Your task to perform on an android device: Open battery settings Image 0: 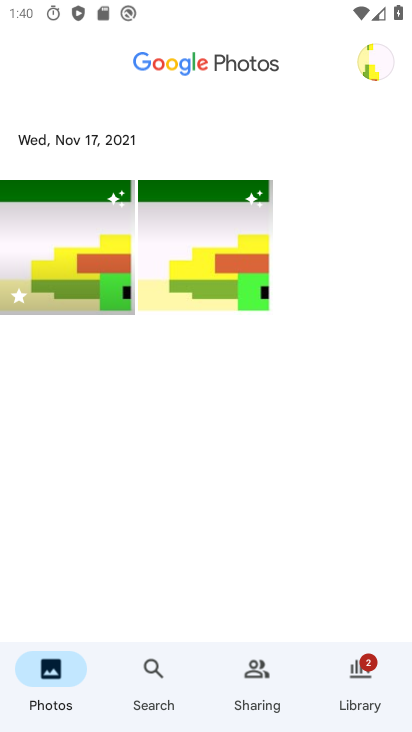
Step 0: press home button
Your task to perform on an android device: Open battery settings Image 1: 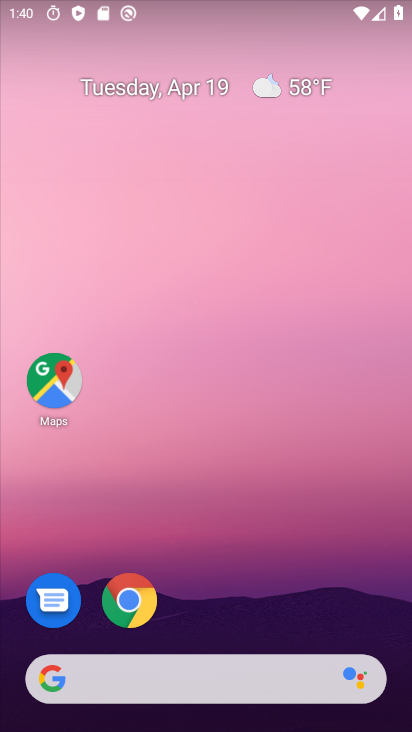
Step 1: drag from (244, 722) to (295, 205)
Your task to perform on an android device: Open battery settings Image 2: 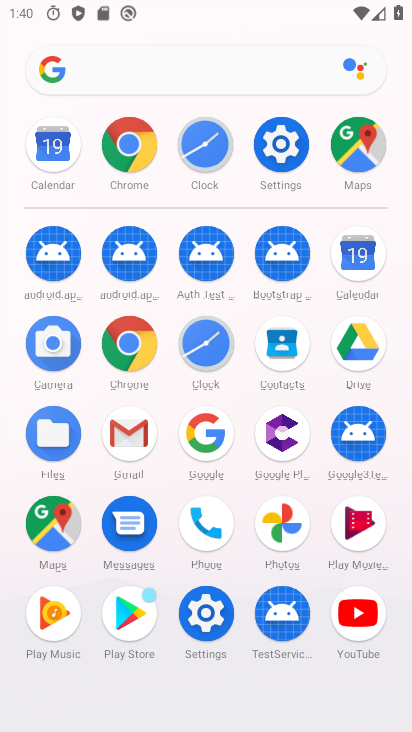
Step 2: click (272, 142)
Your task to perform on an android device: Open battery settings Image 3: 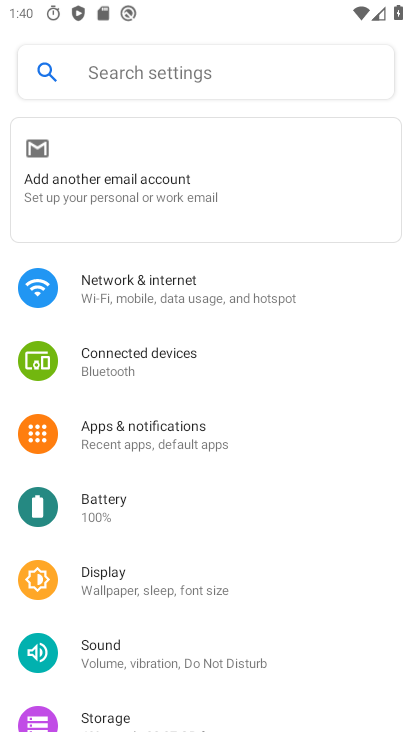
Step 3: click (169, 74)
Your task to perform on an android device: Open battery settings Image 4: 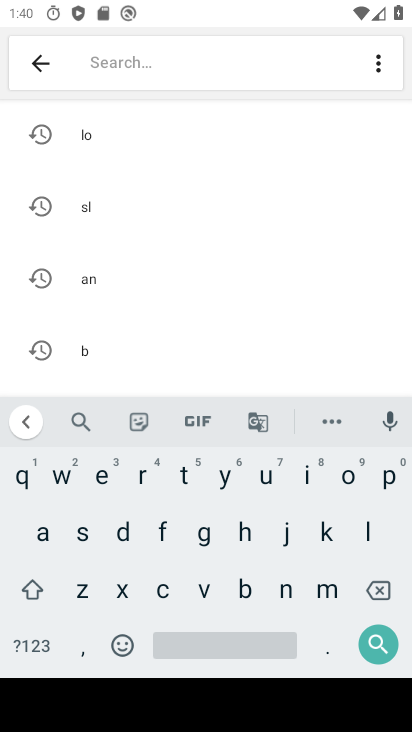
Step 4: click (91, 356)
Your task to perform on an android device: Open battery settings Image 5: 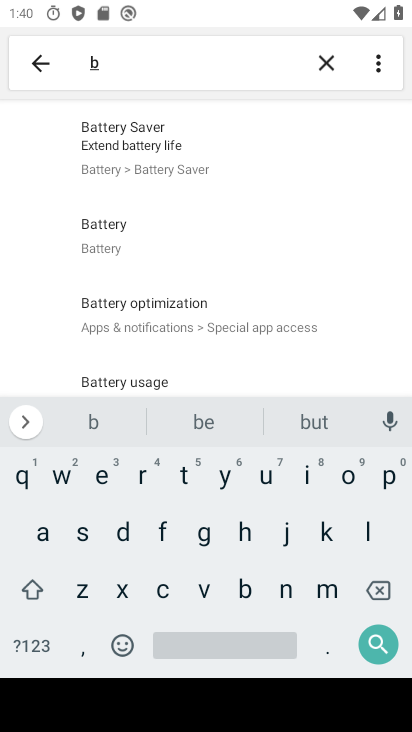
Step 5: click (133, 222)
Your task to perform on an android device: Open battery settings Image 6: 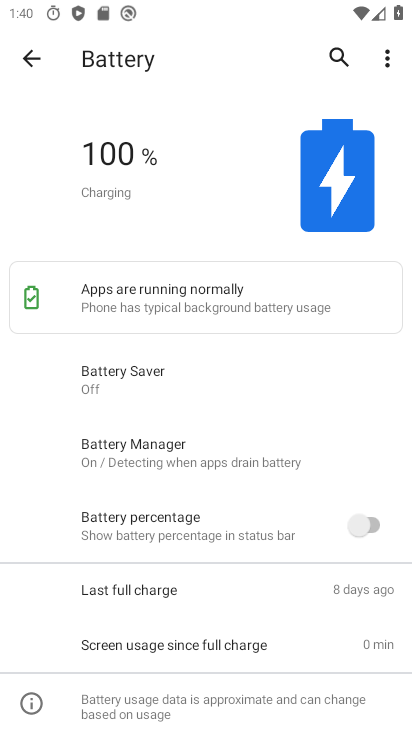
Step 6: task complete